Your task to perform on an android device: Search for pizza restaurants on Maps Image 0: 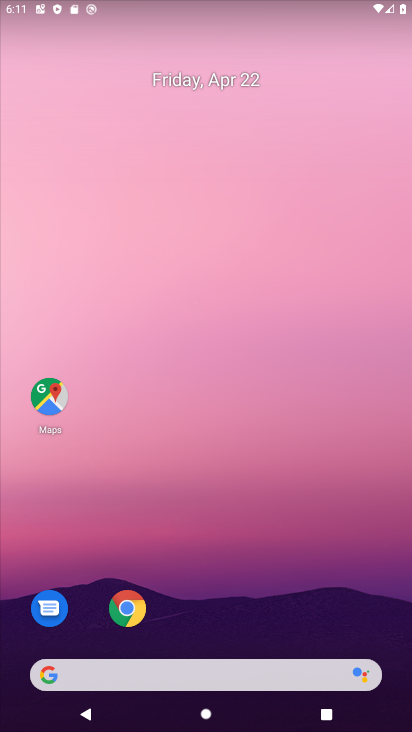
Step 0: click (184, 175)
Your task to perform on an android device: Search for pizza restaurants on Maps Image 1: 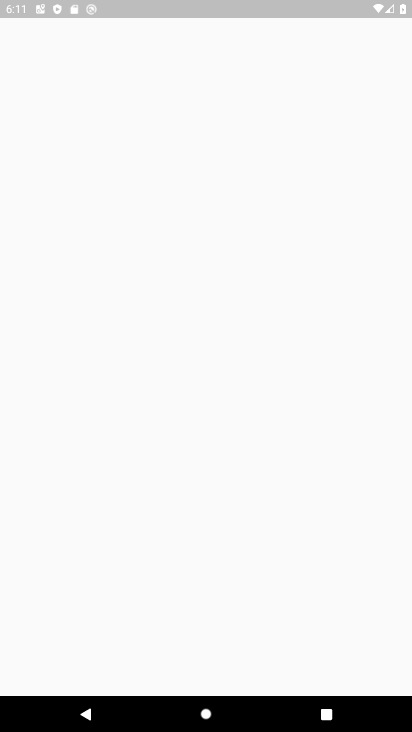
Step 1: drag from (199, 619) to (222, 189)
Your task to perform on an android device: Search for pizza restaurants on Maps Image 2: 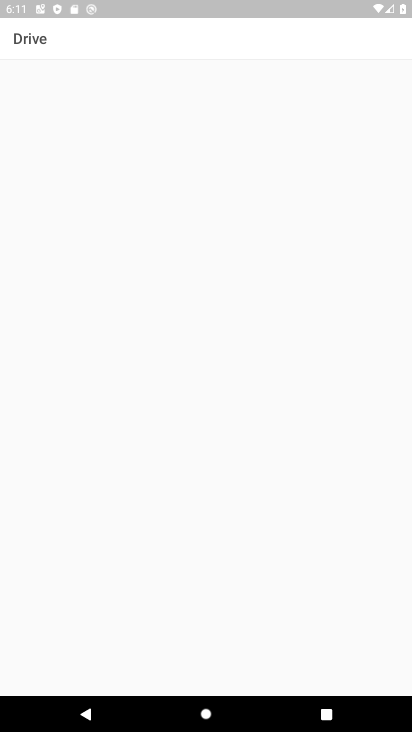
Step 2: press home button
Your task to perform on an android device: Search for pizza restaurants on Maps Image 3: 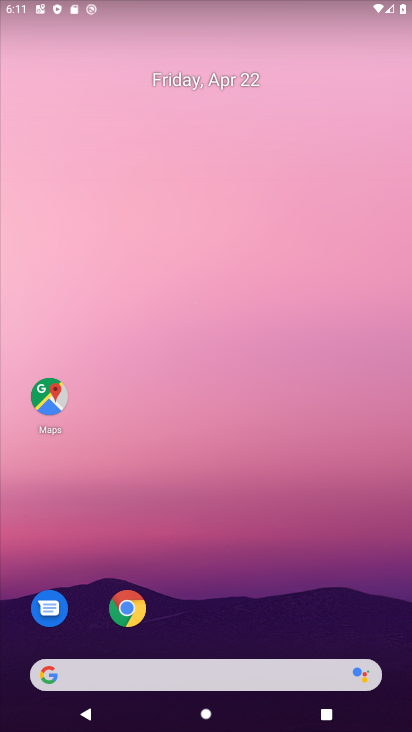
Step 3: click (48, 406)
Your task to perform on an android device: Search for pizza restaurants on Maps Image 4: 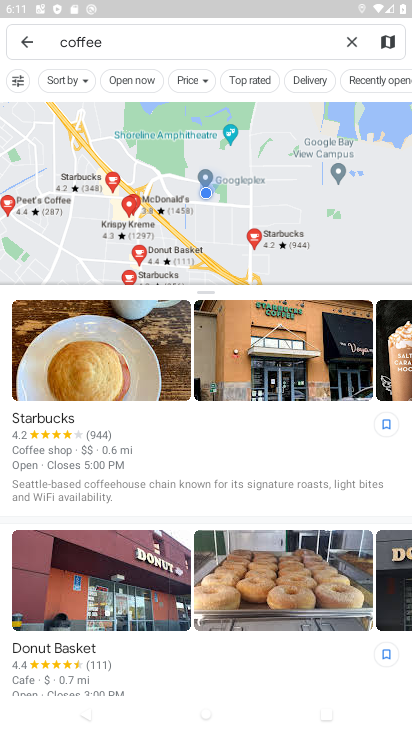
Step 4: click (349, 37)
Your task to perform on an android device: Search for pizza restaurants on Maps Image 5: 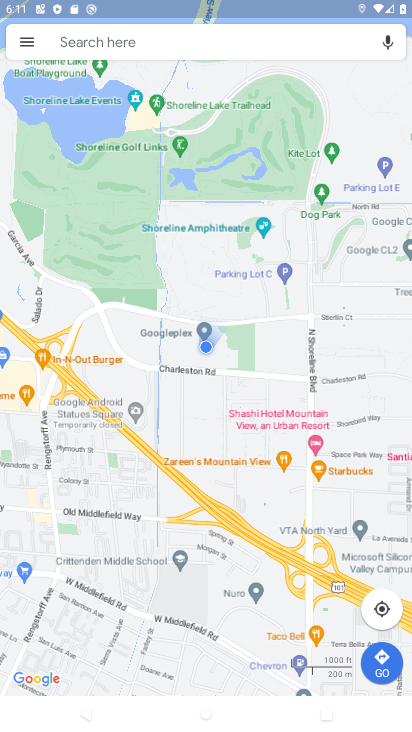
Step 5: click (115, 43)
Your task to perform on an android device: Search for pizza restaurants on Maps Image 6: 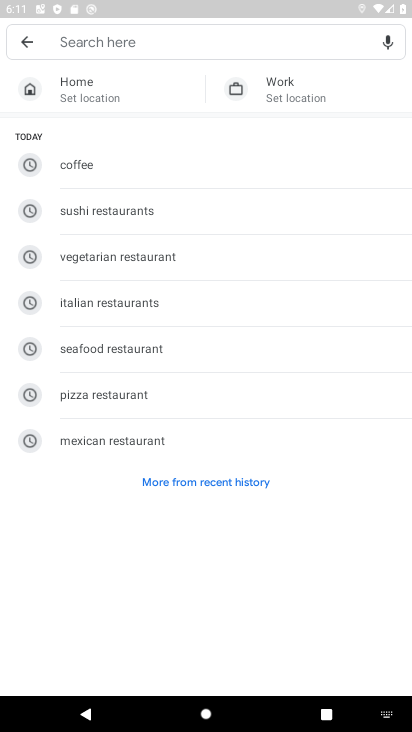
Step 6: click (125, 402)
Your task to perform on an android device: Search for pizza restaurants on Maps Image 7: 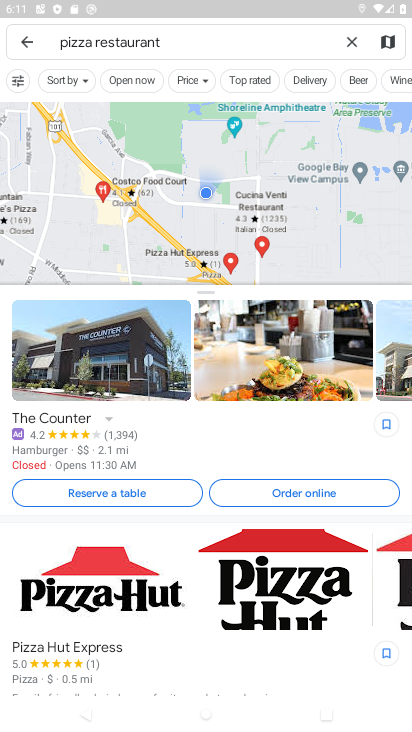
Step 7: task complete